Your task to perform on an android device: Search for "lg ultragear" on bestbuy, select the first entry, add it to the cart, then select checkout. Image 0: 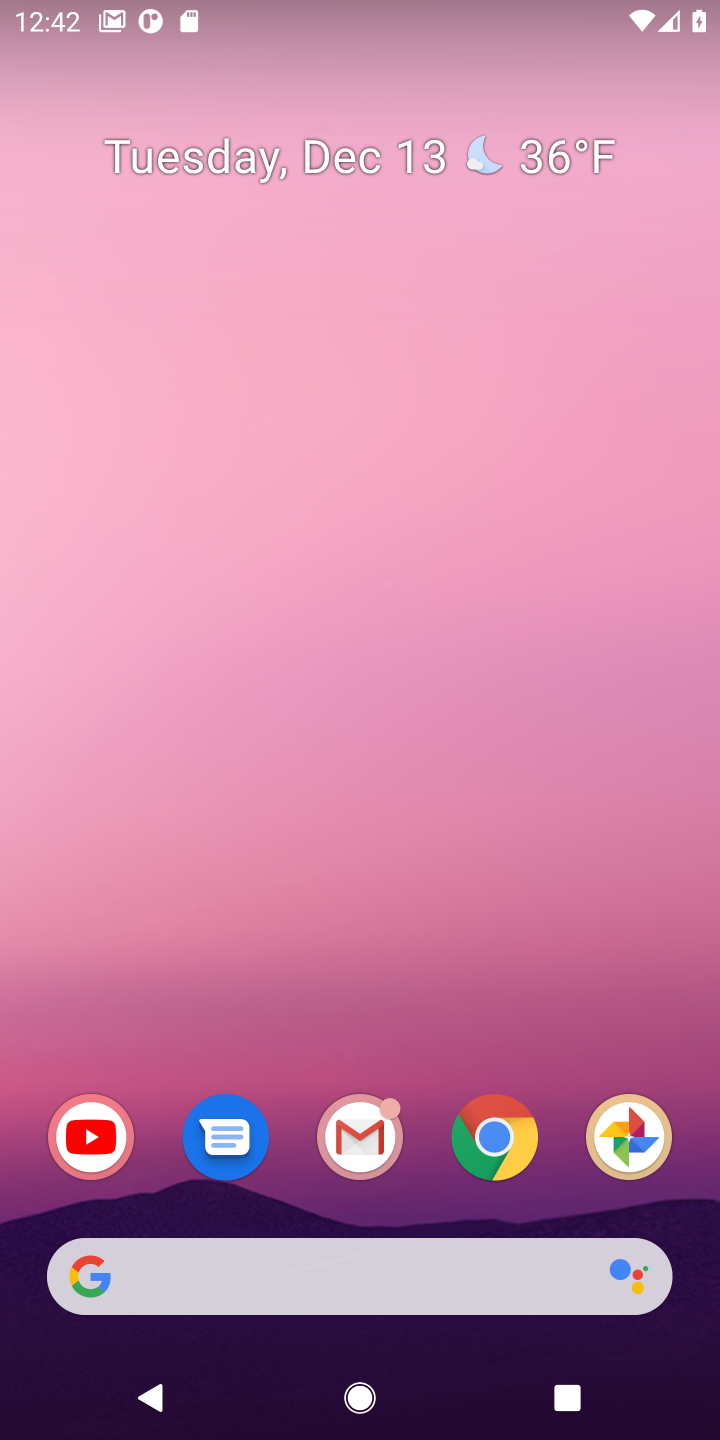
Step 0: click (320, 1259)
Your task to perform on an android device: Search for "lg ultragear" on bestbuy, select the first entry, add it to the cart, then select checkout. Image 1: 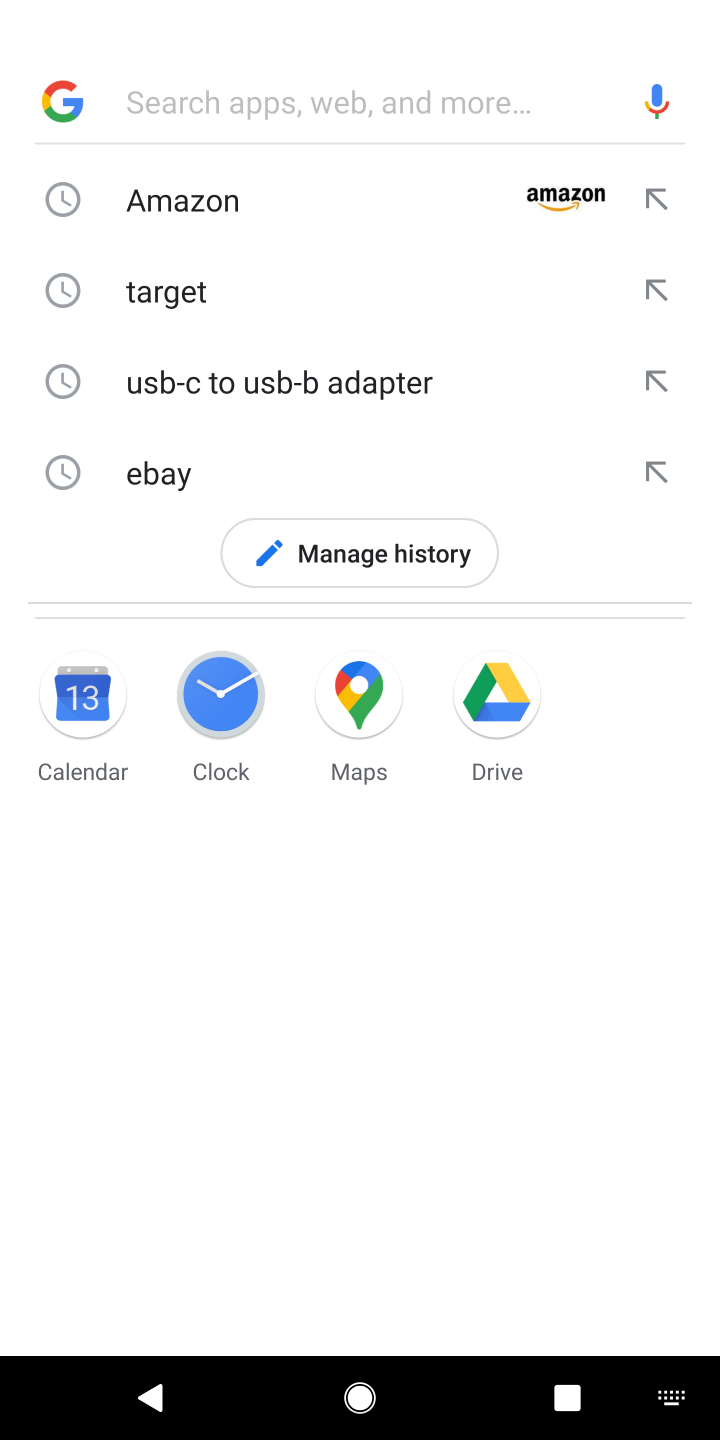
Step 1: type "bestbuy"
Your task to perform on an android device: Search for "lg ultragear" on bestbuy, select the first entry, add it to the cart, then select checkout. Image 2: 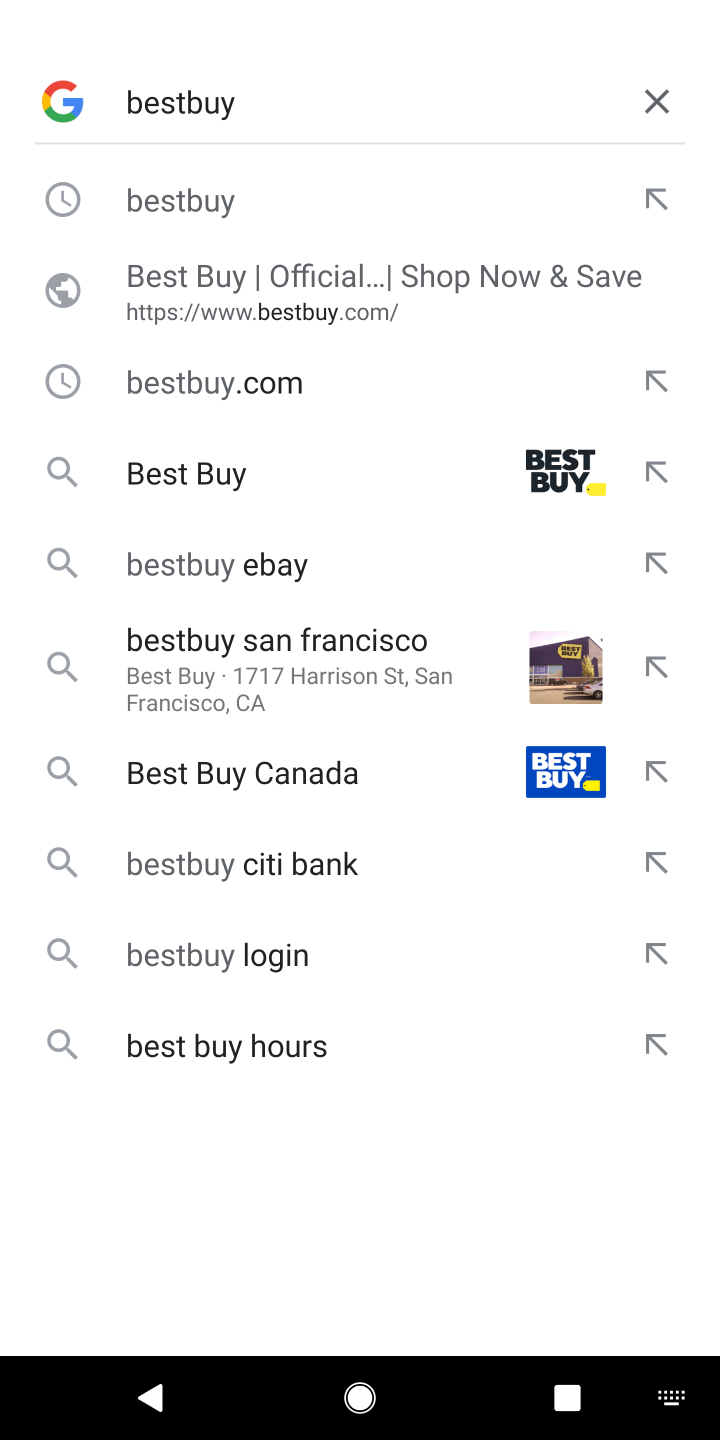
Step 2: click (212, 285)
Your task to perform on an android device: Search for "lg ultragear" on bestbuy, select the first entry, add it to the cart, then select checkout. Image 3: 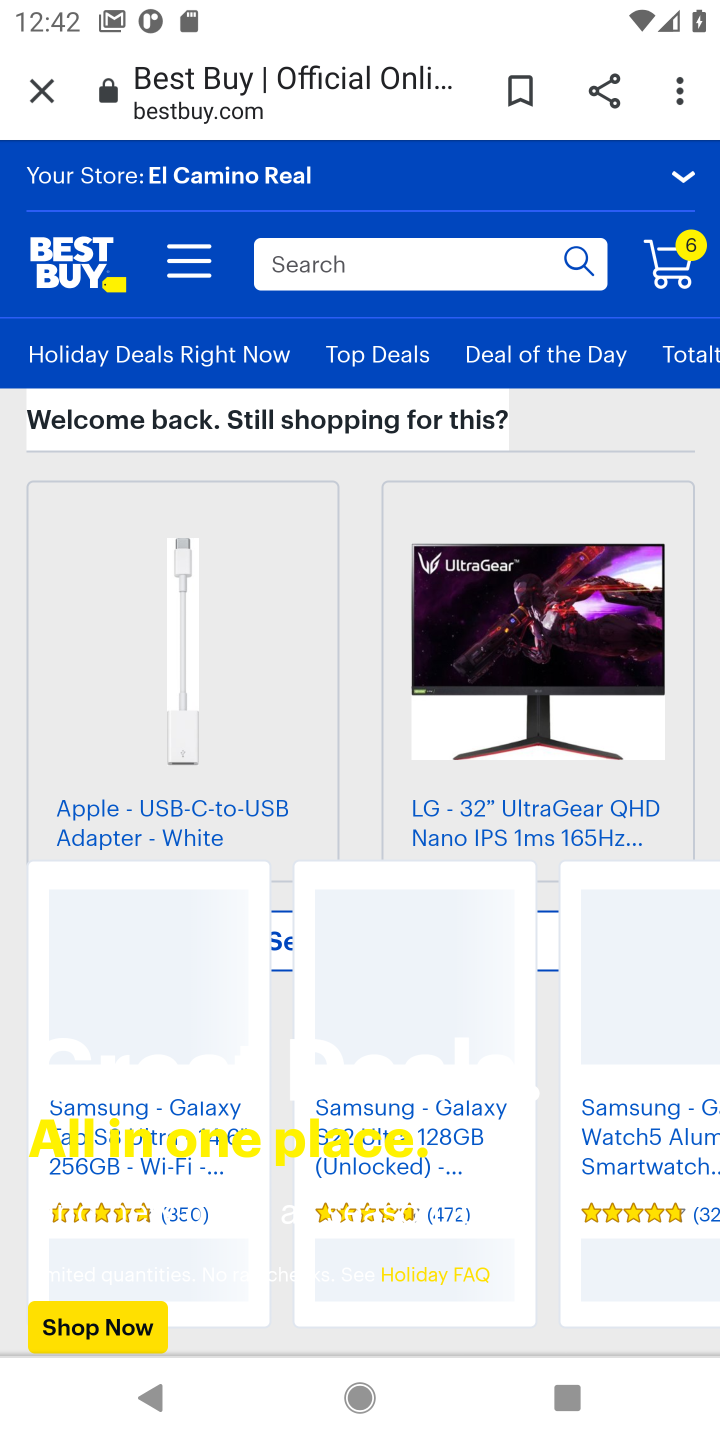
Step 3: click (353, 275)
Your task to perform on an android device: Search for "lg ultragear" on bestbuy, select the first entry, add it to the cart, then select checkout. Image 4: 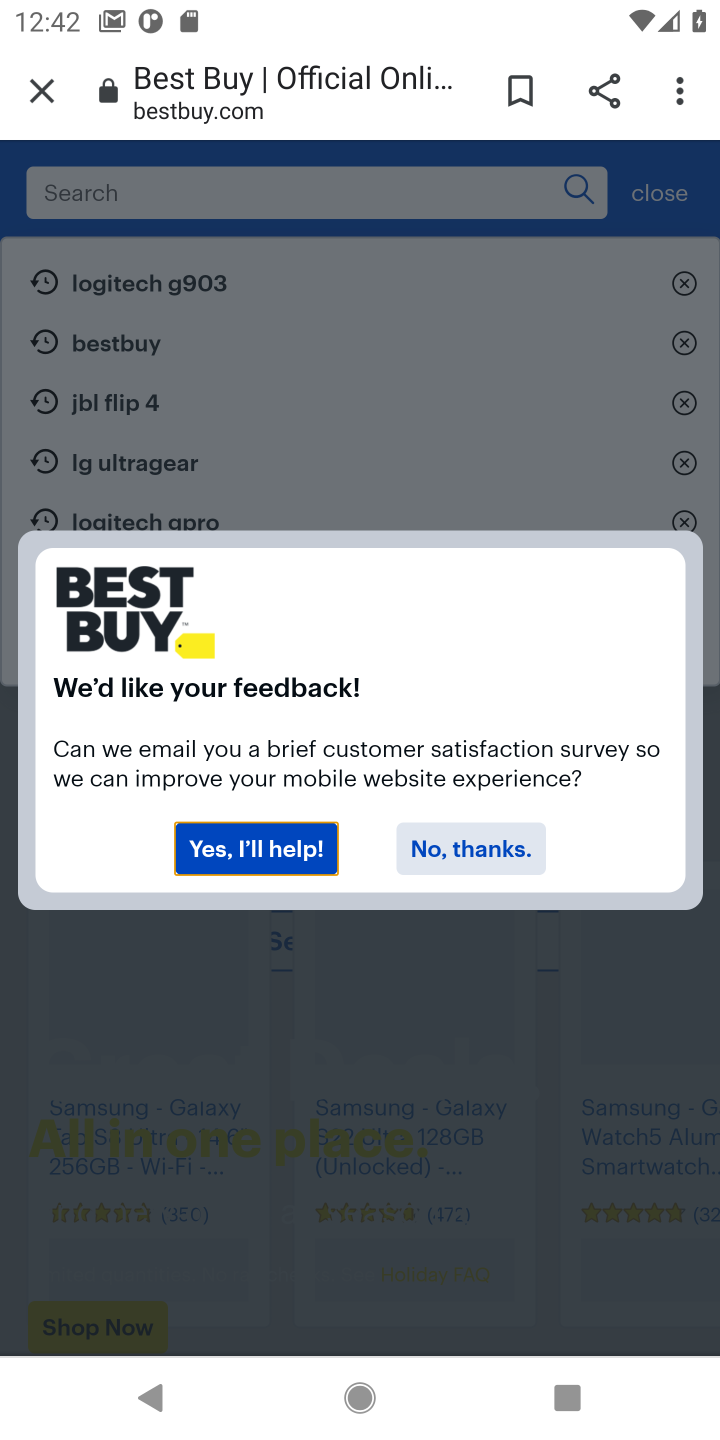
Step 4: click (319, 836)
Your task to perform on an android device: Search for "lg ultragear" on bestbuy, select the first entry, add it to the cart, then select checkout. Image 5: 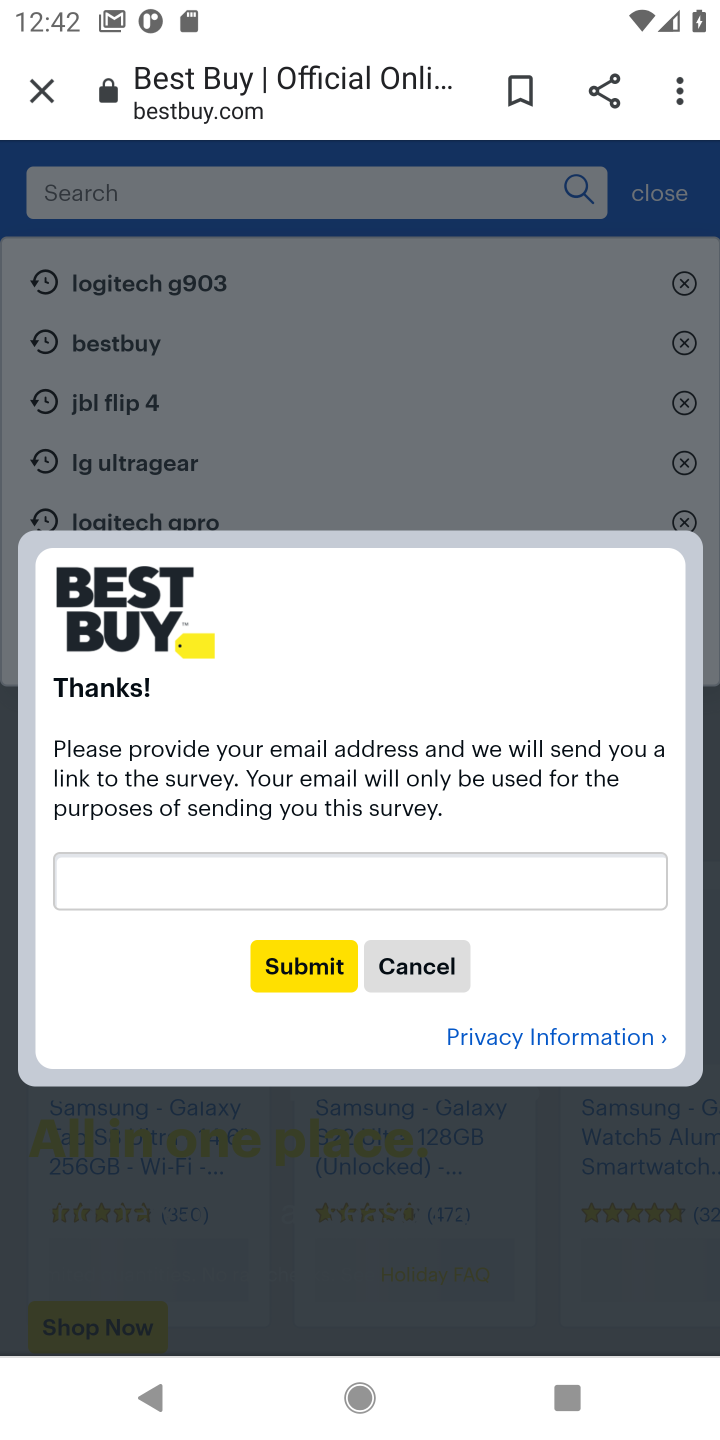
Step 5: click (327, 974)
Your task to perform on an android device: Search for "lg ultragear" on bestbuy, select the first entry, add it to the cart, then select checkout. Image 6: 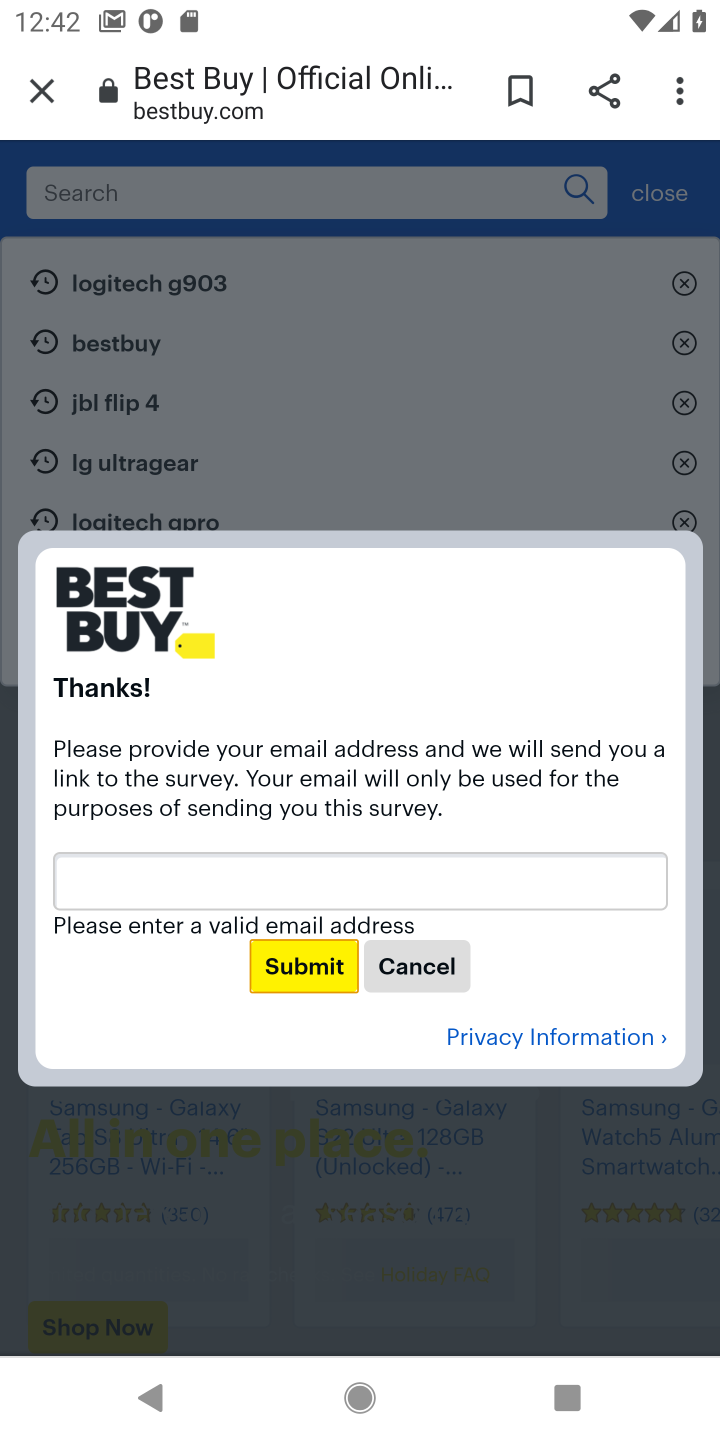
Step 6: click (290, 954)
Your task to perform on an android device: Search for "lg ultragear" on bestbuy, select the first entry, add it to the cart, then select checkout. Image 7: 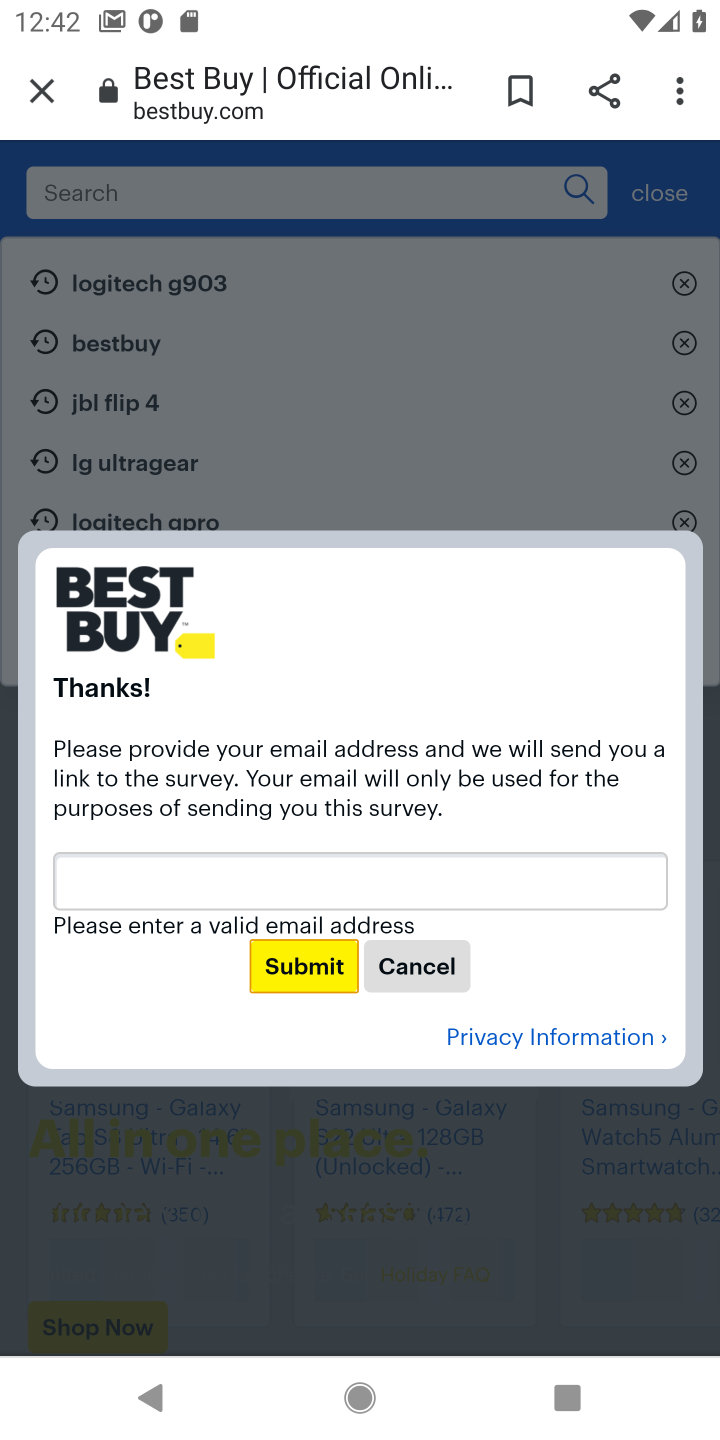
Step 7: click (404, 971)
Your task to perform on an android device: Search for "lg ultragear" on bestbuy, select the first entry, add it to the cart, then select checkout. Image 8: 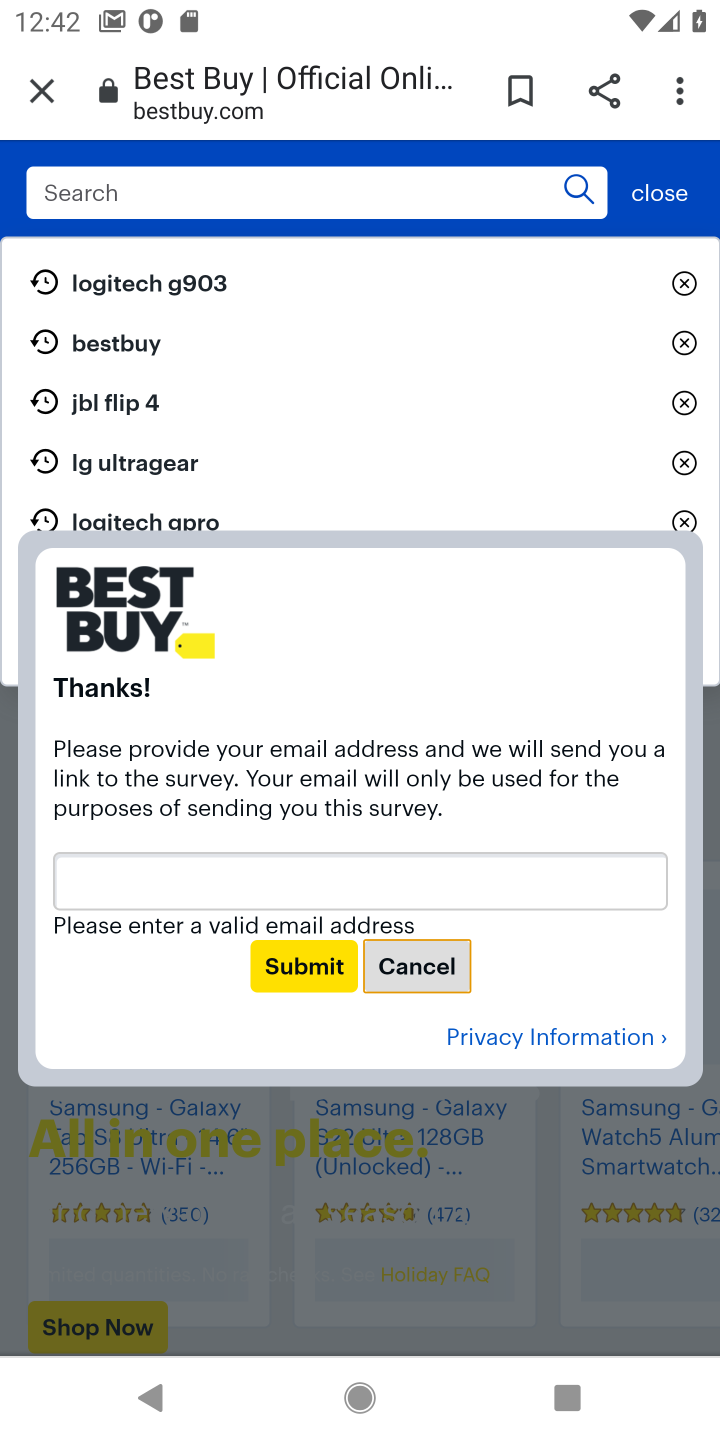
Step 8: click (342, 205)
Your task to perform on an android device: Search for "lg ultragear" on bestbuy, select the first entry, add it to the cart, then select checkout. Image 9: 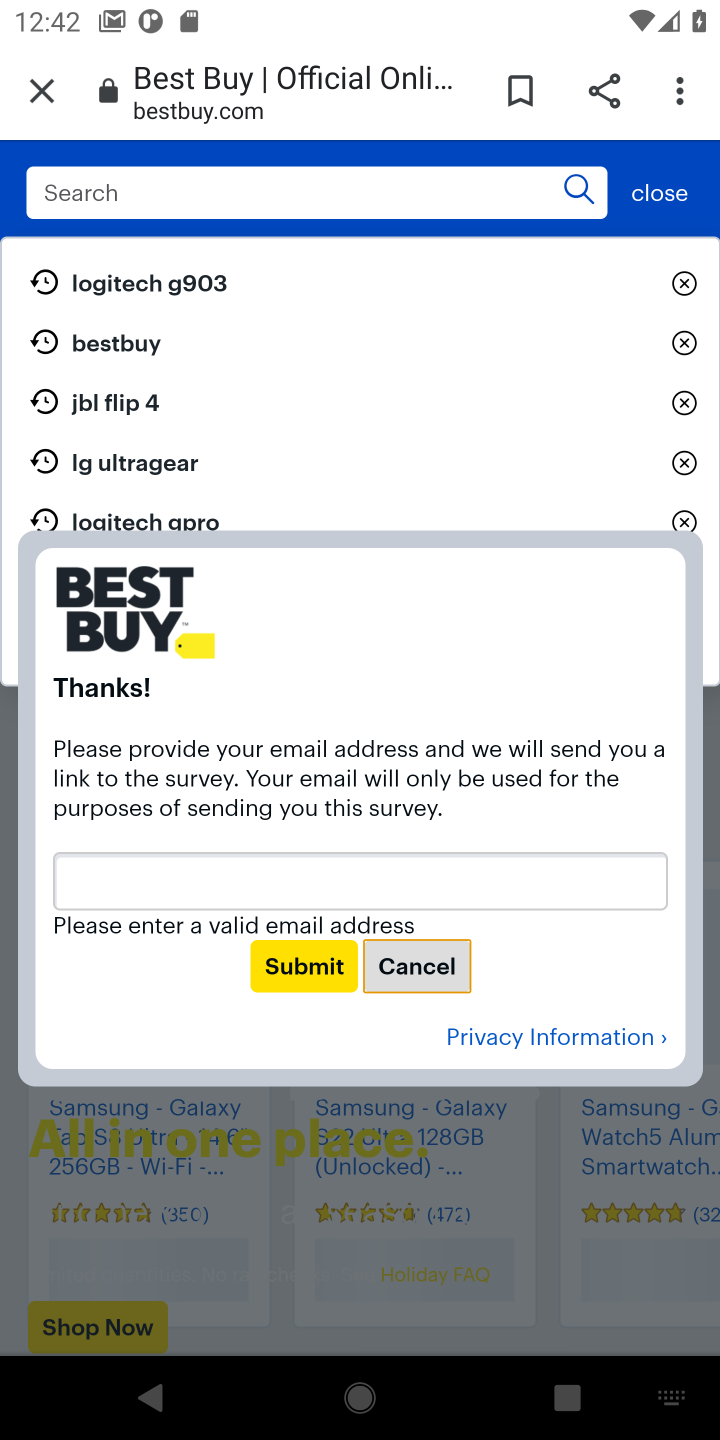
Step 9: click (342, 205)
Your task to perform on an android device: Search for "lg ultragear" on bestbuy, select the first entry, add it to the cart, then select checkout. Image 10: 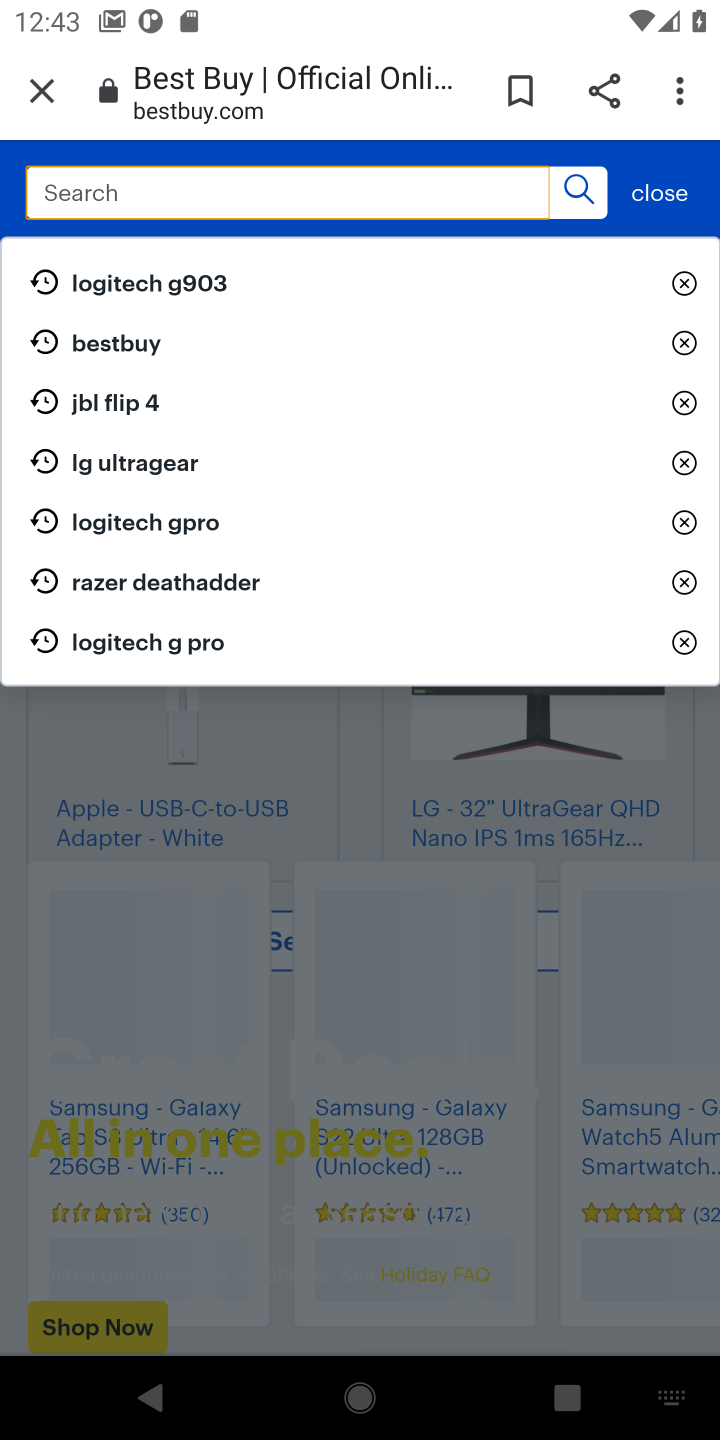
Step 10: type "lg ultragear"
Your task to perform on an android device: Search for "lg ultragear" on bestbuy, select the first entry, add it to the cart, then select checkout. Image 11: 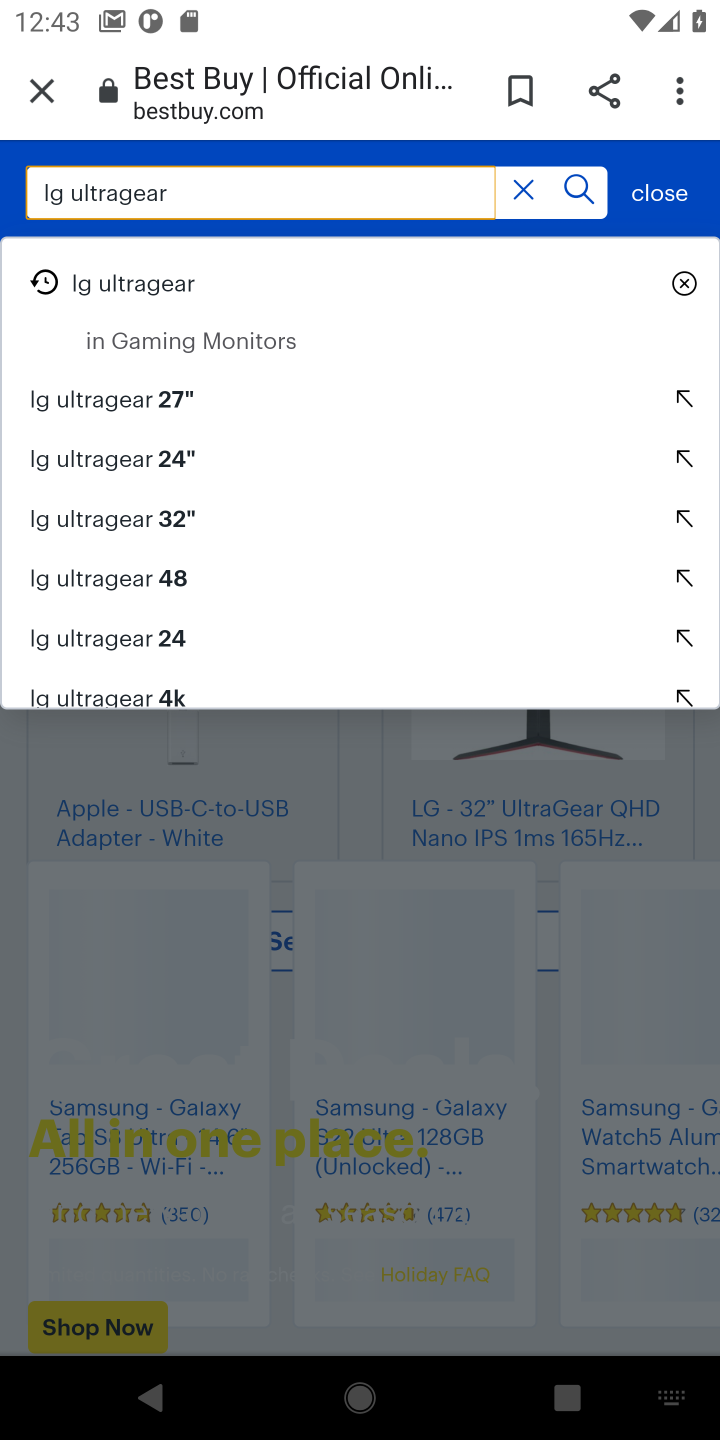
Step 11: click (598, 194)
Your task to perform on an android device: Search for "lg ultragear" on bestbuy, select the first entry, add it to the cart, then select checkout. Image 12: 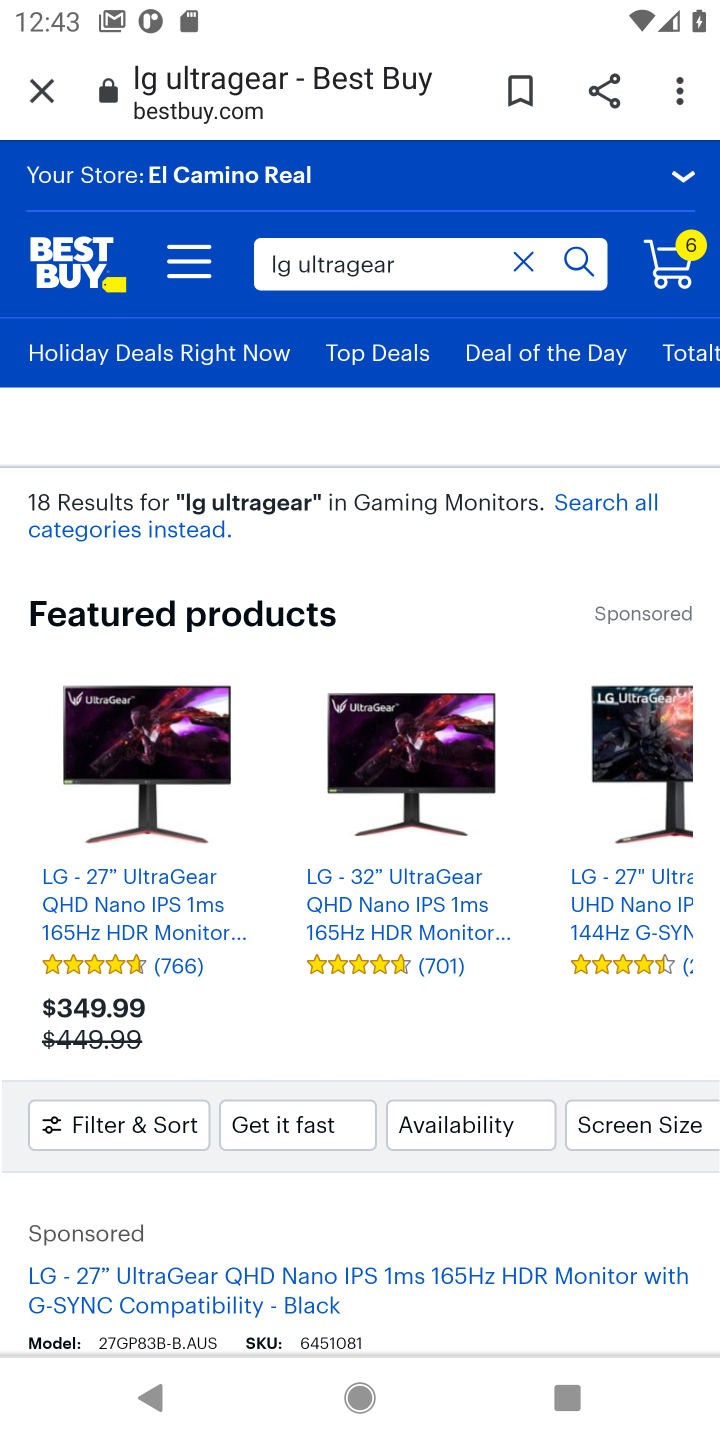
Step 12: click (152, 895)
Your task to perform on an android device: Search for "lg ultragear" on bestbuy, select the first entry, add it to the cart, then select checkout. Image 13: 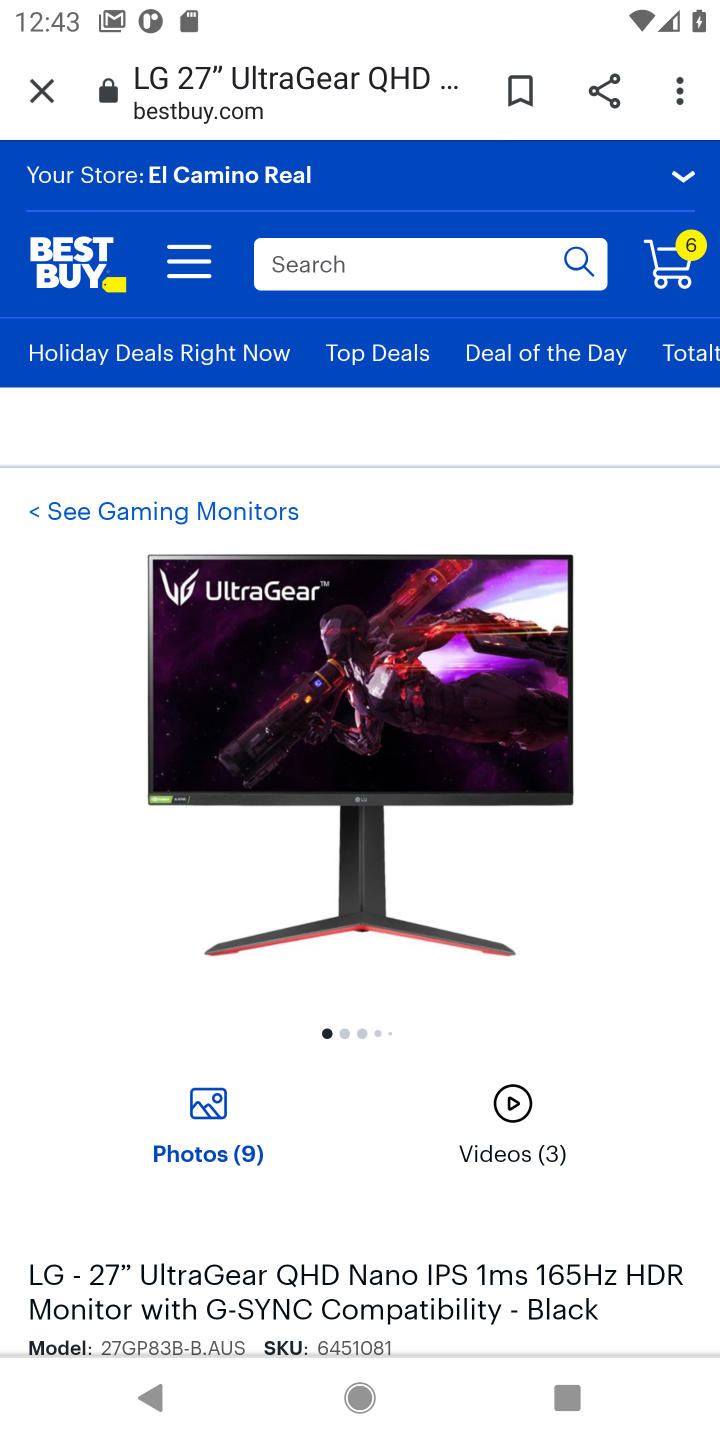
Step 13: task complete